Your task to perform on an android device: read, delete, or share a saved page in the chrome app Image 0: 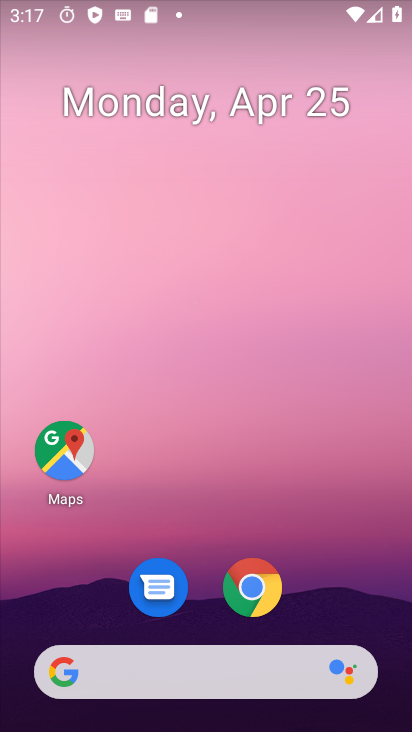
Step 0: drag from (346, 594) to (343, 158)
Your task to perform on an android device: read, delete, or share a saved page in the chrome app Image 1: 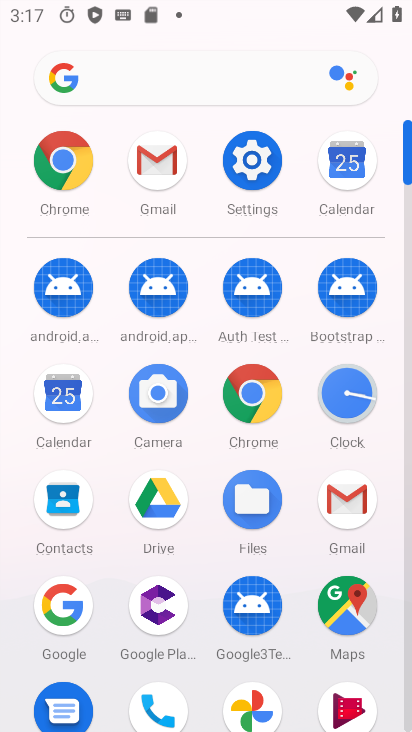
Step 1: click (260, 387)
Your task to perform on an android device: read, delete, or share a saved page in the chrome app Image 2: 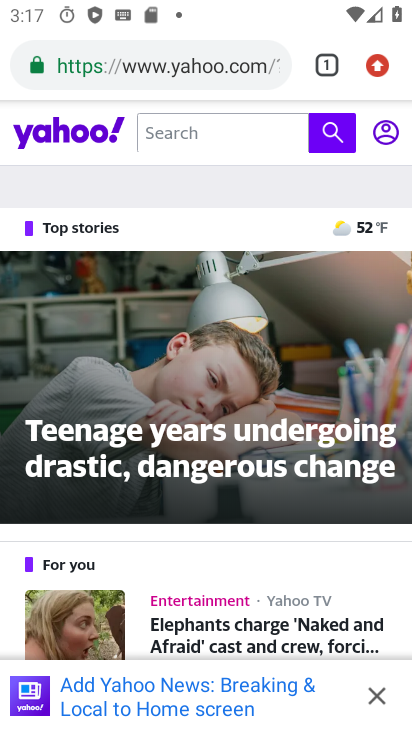
Step 2: task complete